Your task to perform on an android device: Do I have any events this weekend? Image 0: 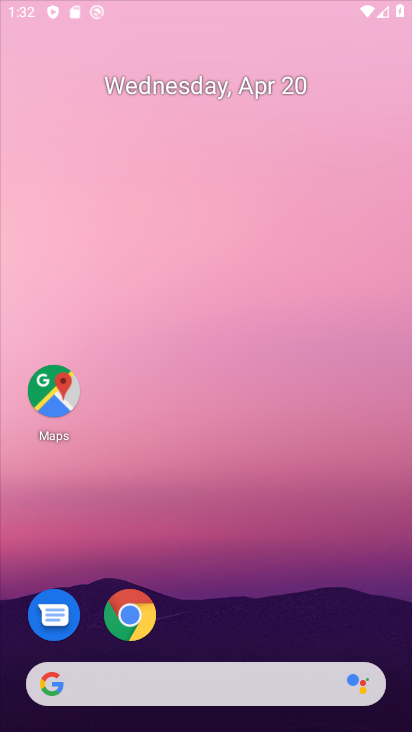
Step 0: drag from (208, 606) to (217, 341)
Your task to perform on an android device: Do I have any events this weekend? Image 1: 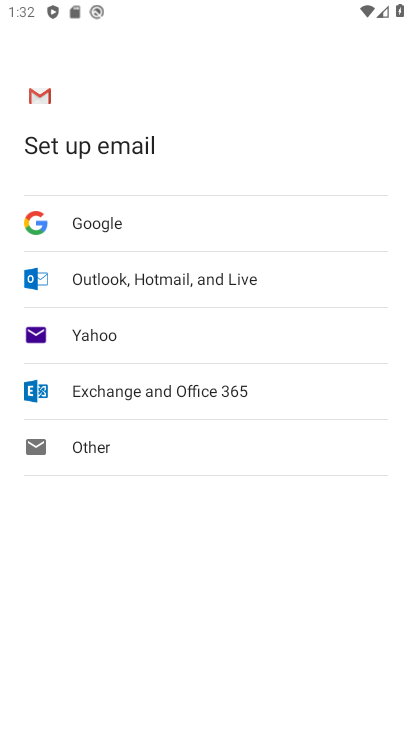
Step 1: press home button
Your task to perform on an android device: Do I have any events this weekend? Image 2: 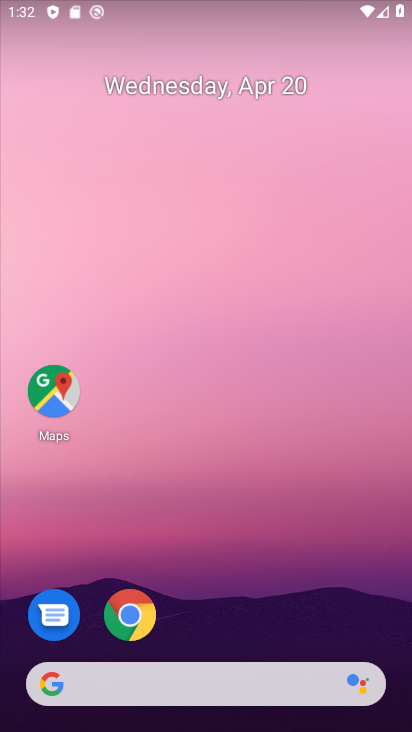
Step 2: drag from (266, 578) to (226, 14)
Your task to perform on an android device: Do I have any events this weekend? Image 3: 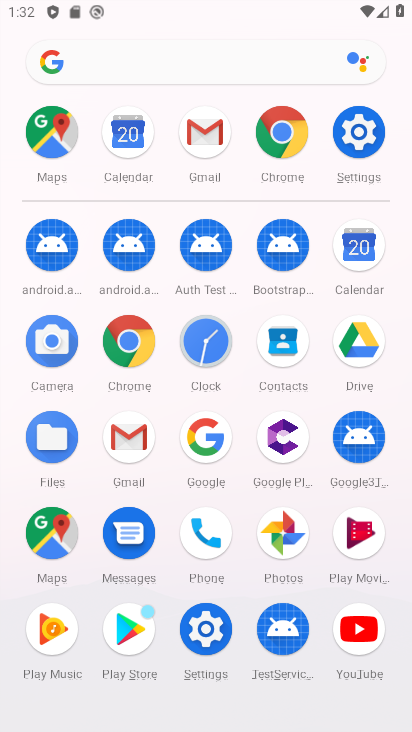
Step 3: click (347, 237)
Your task to perform on an android device: Do I have any events this weekend? Image 4: 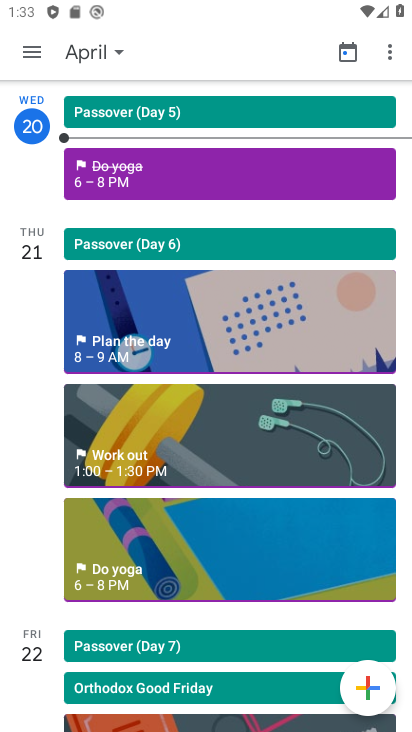
Step 4: click (109, 59)
Your task to perform on an android device: Do I have any events this weekend? Image 5: 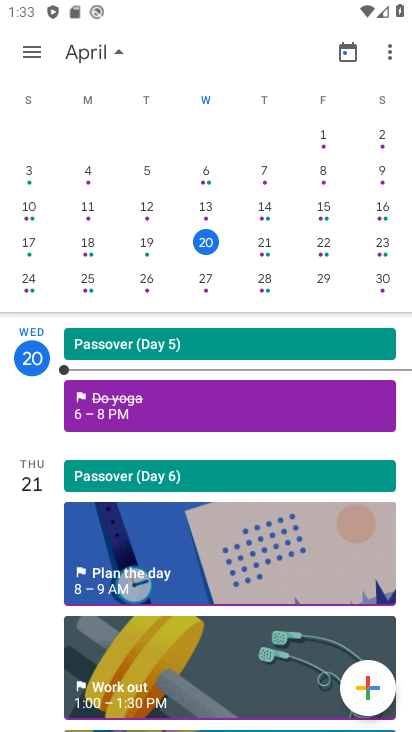
Step 5: click (385, 249)
Your task to perform on an android device: Do I have any events this weekend? Image 6: 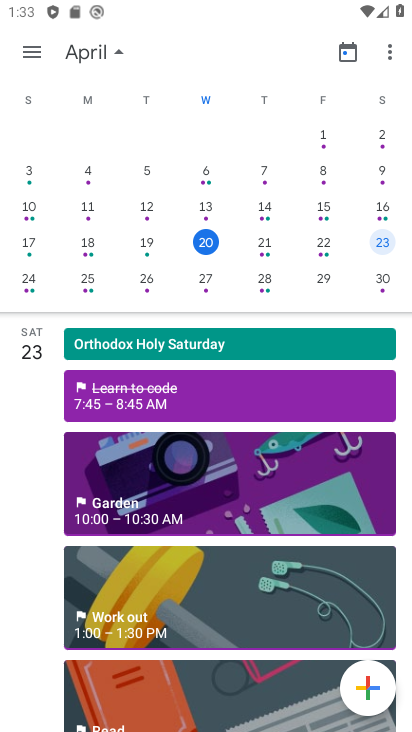
Step 6: click (39, 281)
Your task to perform on an android device: Do I have any events this weekend? Image 7: 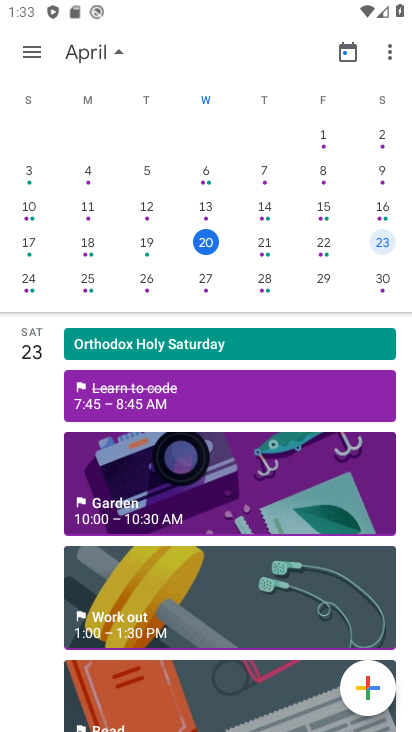
Step 7: click (32, 280)
Your task to perform on an android device: Do I have any events this weekend? Image 8: 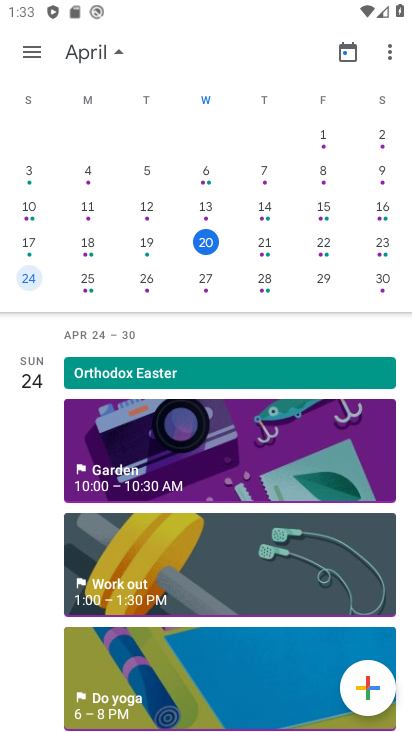
Step 8: task complete